Your task to perform on an android device: Go to notification settings Image 0: 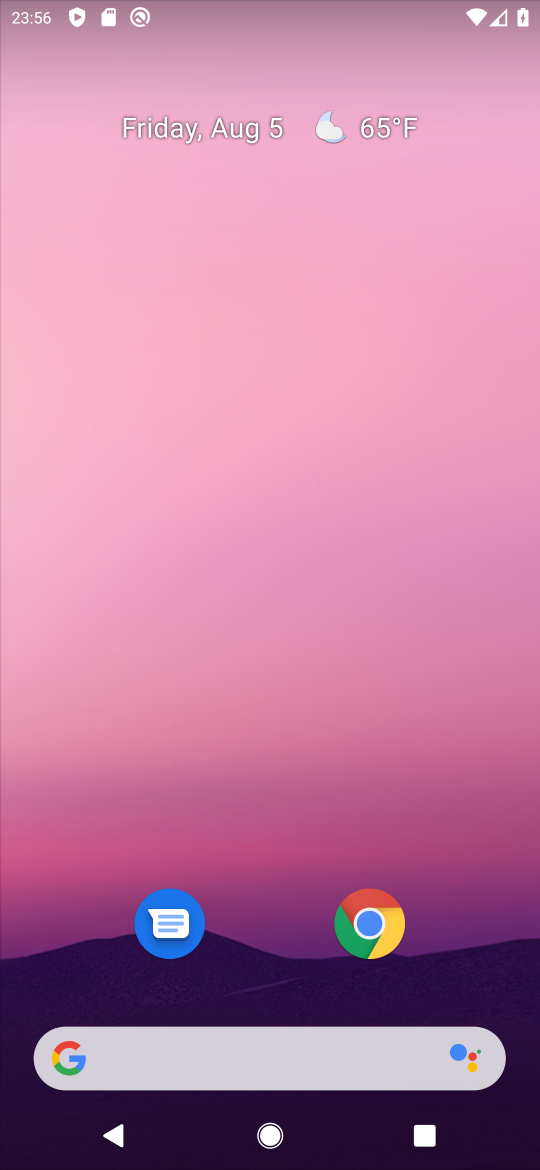
Step 0: drag from (292, 935) to (236, 185)
Your task to perform on an android device: Go to notification settings Image 1: 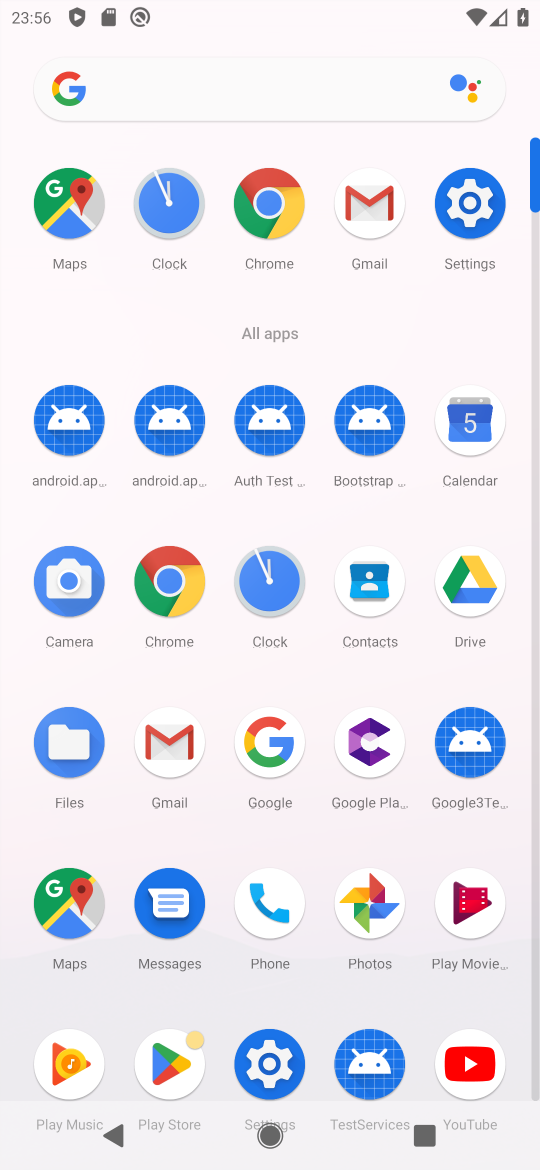
Step 1: click (491, 217)
Your task to perform on an android device: Go to notification settings Image 2: 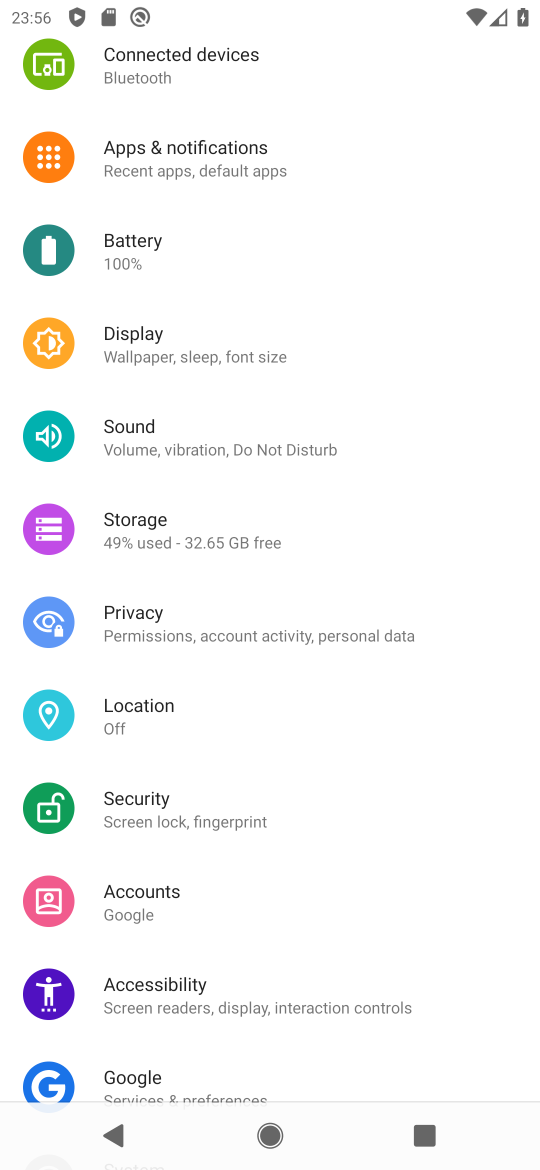
Step 2: click (273, 143)
Your task to perform on an android device: Go to notification settings Image 3: 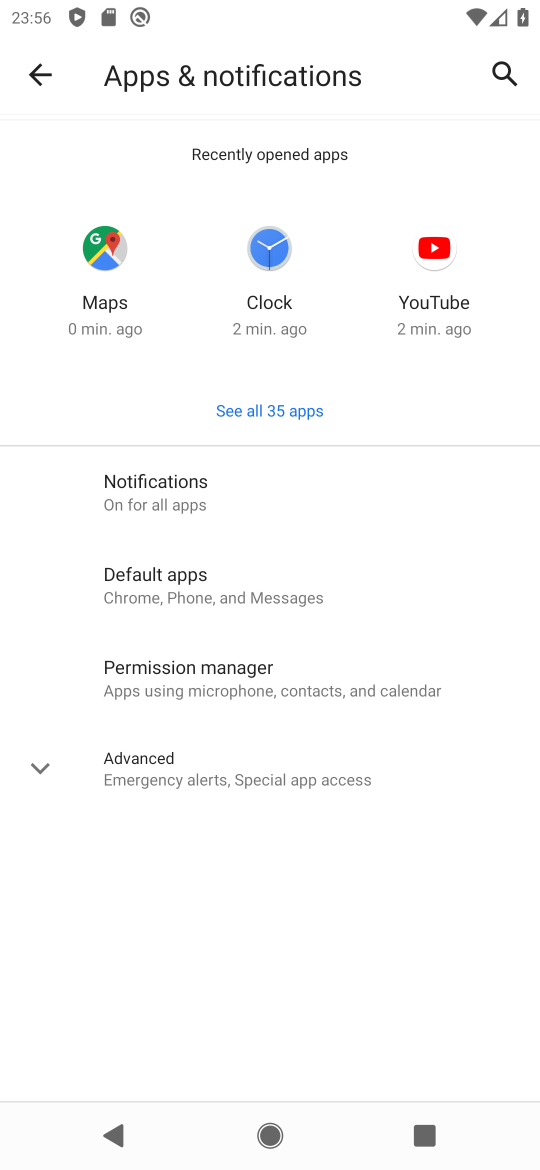
Step 3: click (257, 491)
Your task to perform on an android device: Go to notification settings Image 4: 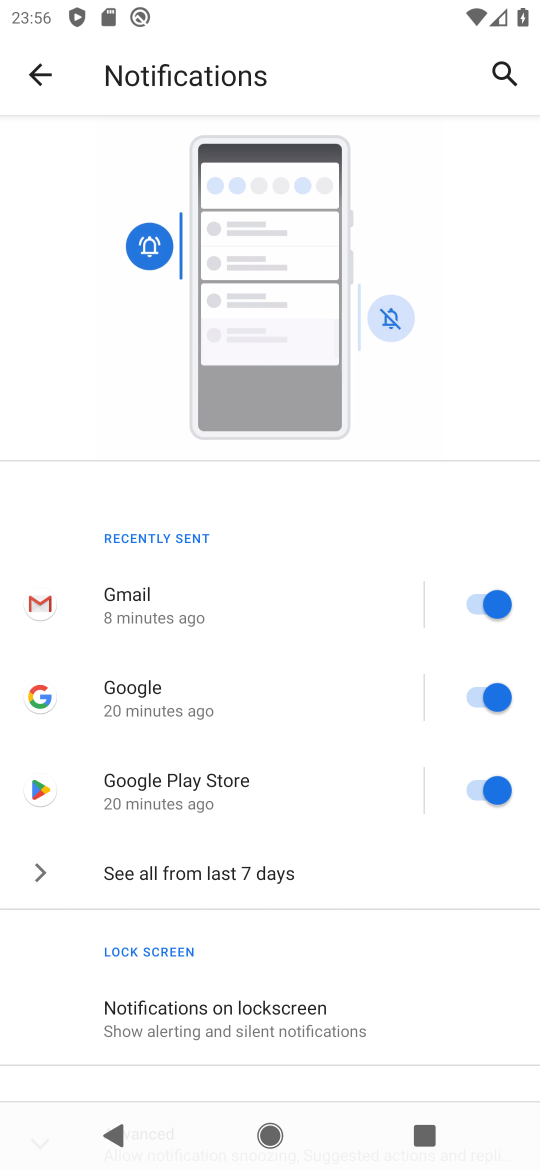
Step 4: task complete